Your task to perform on an android device: empty trash in google photos Image 0: 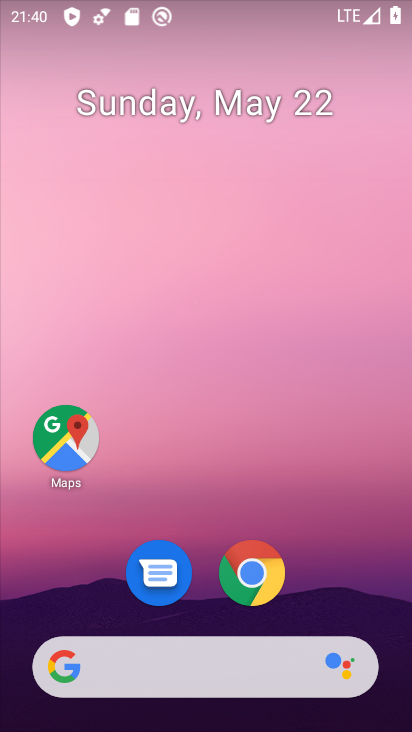
Step 0: press home button
Your task to perform on an android device: empty trash in google photos Image 1: 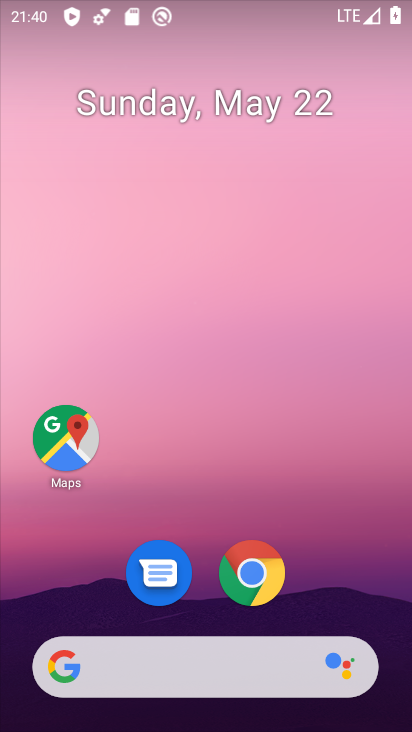
Step 1: drag from (377, 617) to (250, 38)
Your task to perform on an android device: empty trash in google photos Image 2: 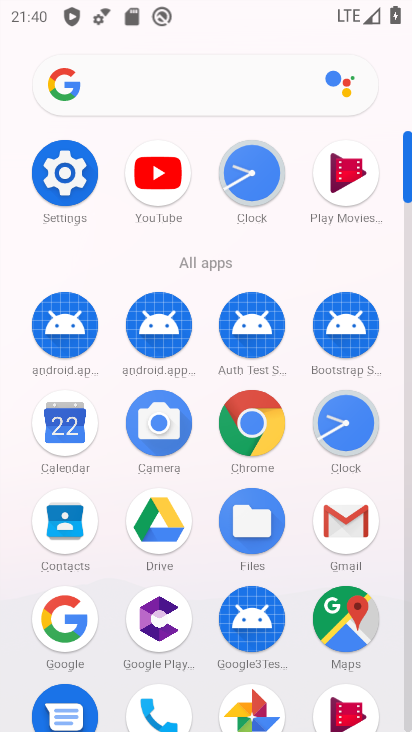
Step 2: click (411, 705)
Your task to perform on an android device: empty trash in google photos Image 3: 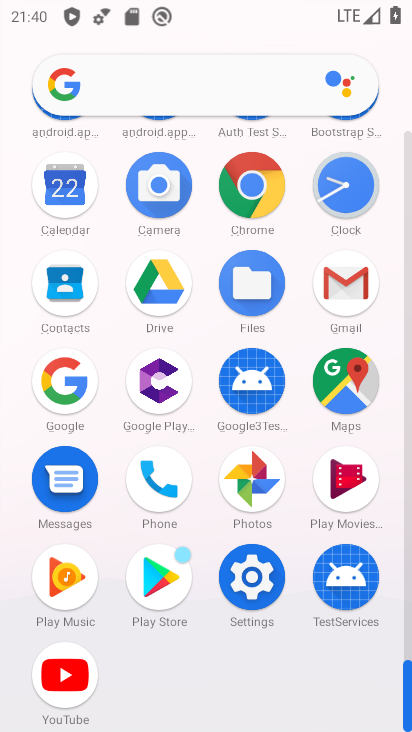
Step 3: click (270, 473)
Your task to perform on an android device: empty trash in google photos Image 4: 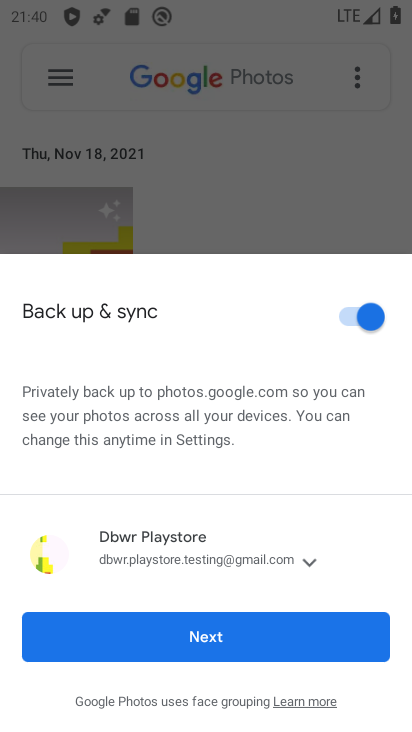
Step 4: click (148, 654)
Your task to perform on an android device: empty trash in google photos Image 5: 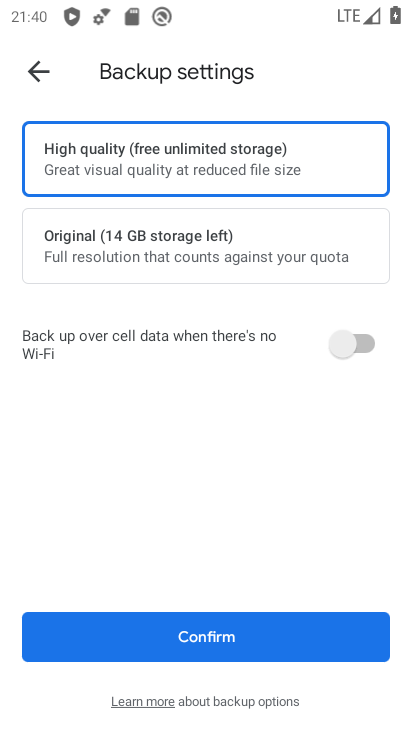
Step 5: click (274, 634)
Your task to perform on an android device: empty trash in google photos Image 6: 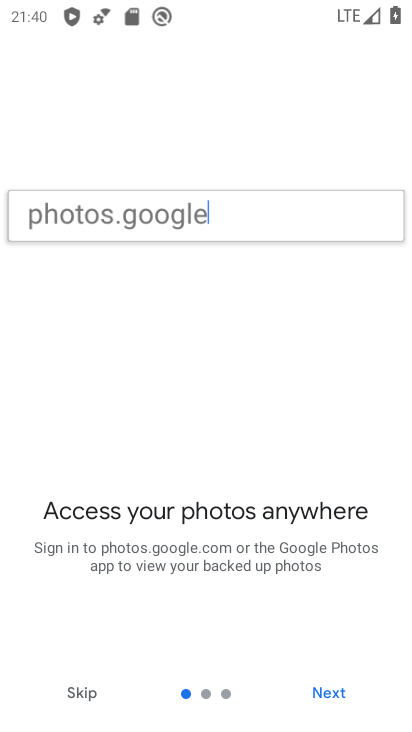
Step 6: click (332, 694)
Your task to perform on an android device: empty trash in google photos Image 7: 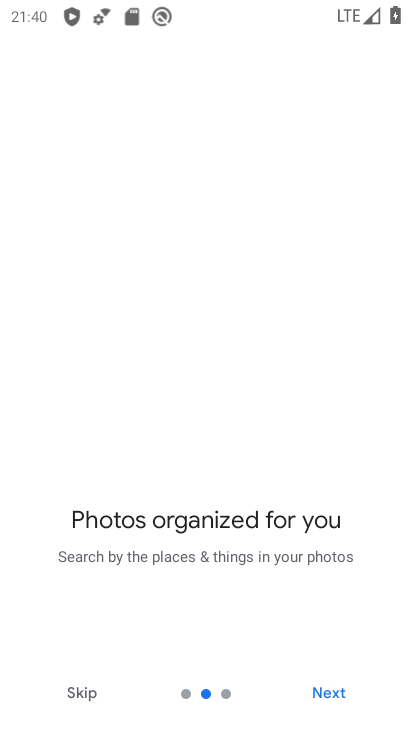
Step 7: click (326, 689)
Your task to perform on an android device: empty trash in google photos Image 8: 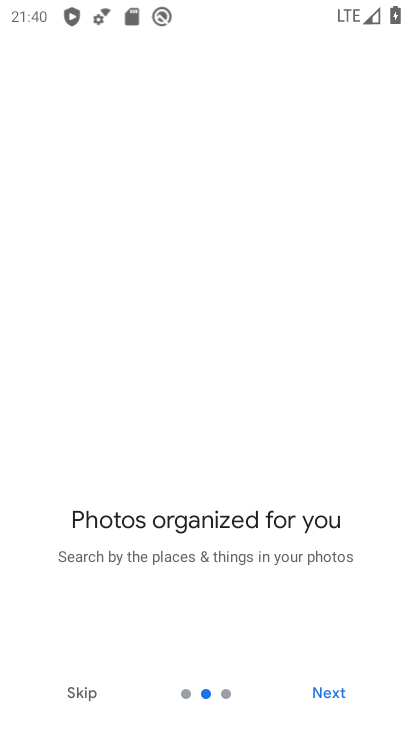
Step 8: click (326, 689)
Your task to perform on an android device: empty trash in google photos Image 9: 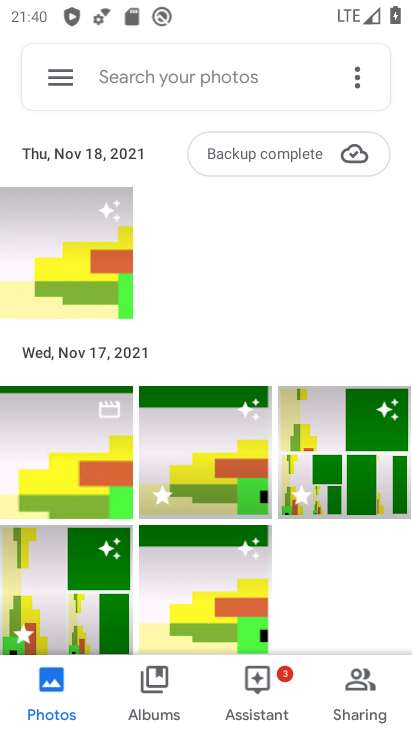
Step 9: click (326, 689)
Your task to perform on an android device: empty trash in google photos Image 10: 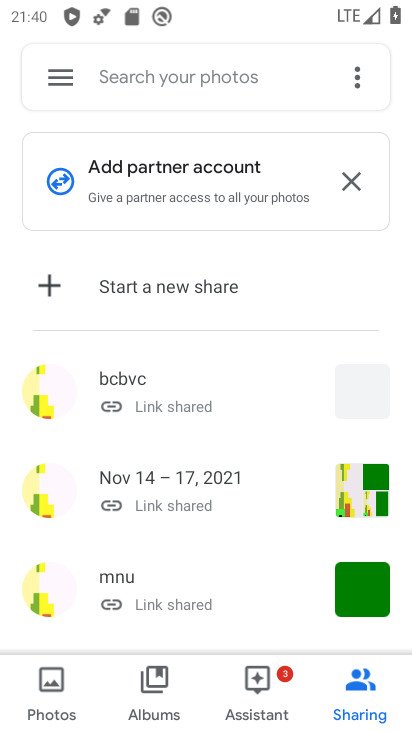
Step 10: click (85, 692)
Your task to perform on an android device: empty trash in google photos Image 11: 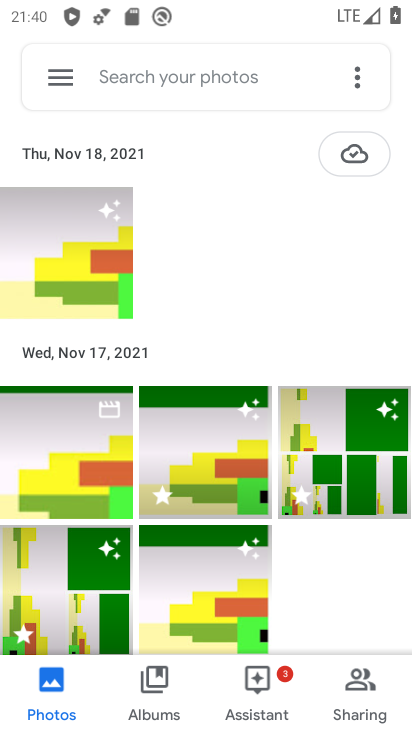
Step 11: drag from (194, 277) to (315, 61)
Your task to perform on an android device: empty trash in google photos Image 12: 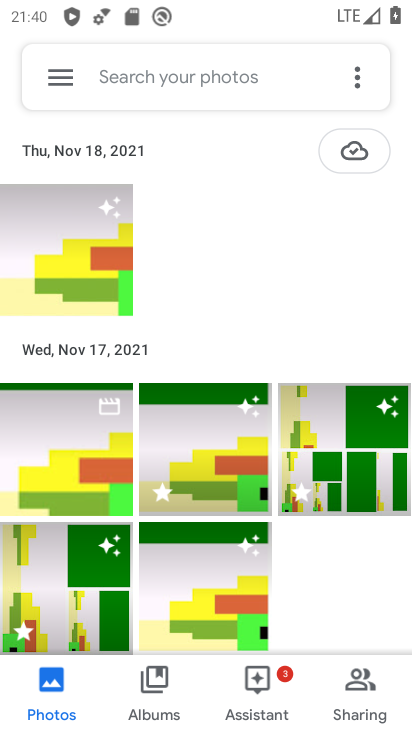
Step 12: drag from (361, 559) to (341, 386)
Your task to perform on an android device: empty trash in google photos Image 13: 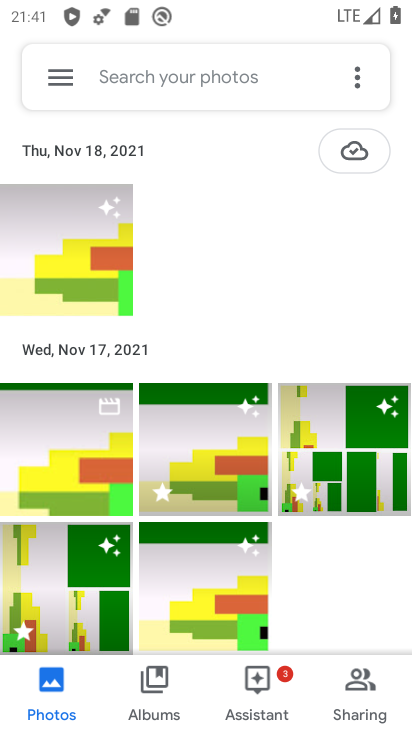
Step 13: click (42, 80)
Your task to perform on an android device: empty trash in google photos Image 14: 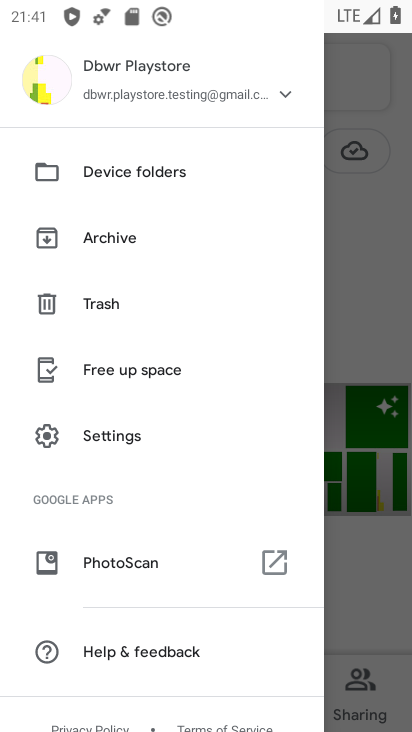
Step 14: click (54, 310)
Your task to perform on an android device: empty trash in google photos Image 15: 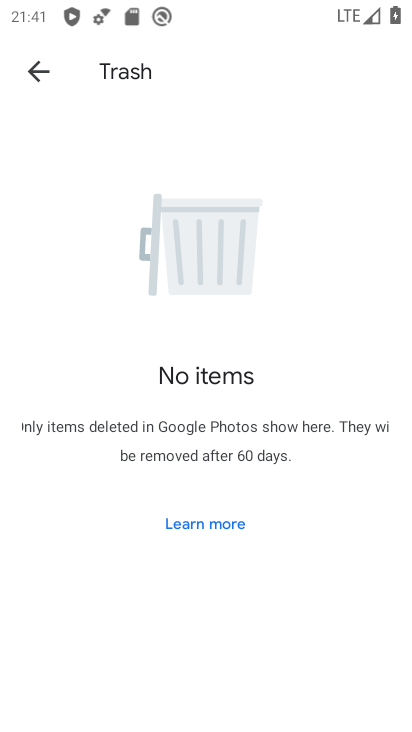
Step 15: task complete